Your task to perform on an android device: Open Maps and search for coffee Image 0: 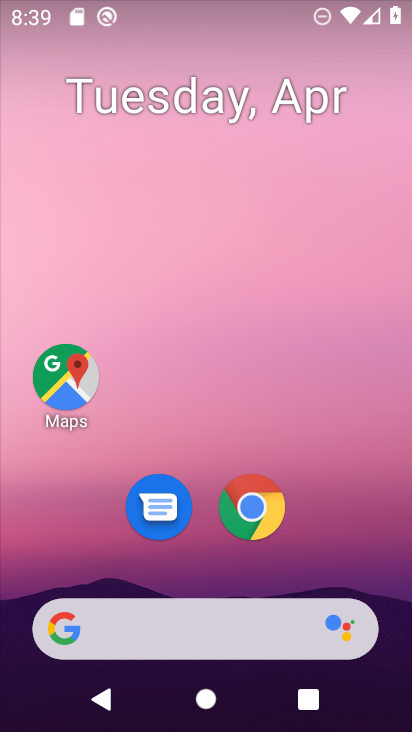
Step 0: click (88, 371)
Your task to perform on an android device: Open Maps and search for coffee Image 1: 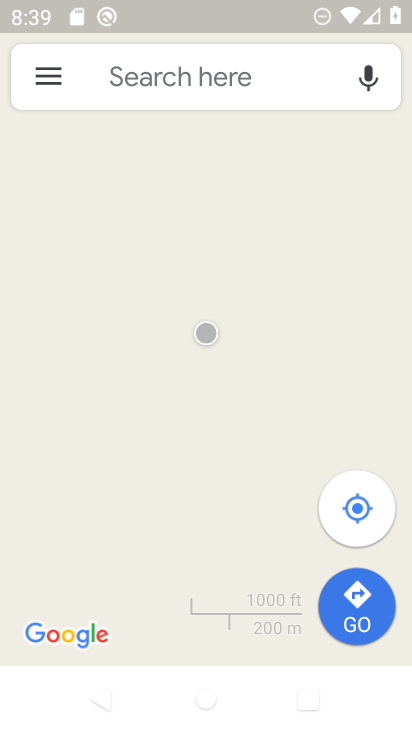
Step 1: click (202, 61)
Your task to perform on an android device: Open Maps and search for coffee Image 2: 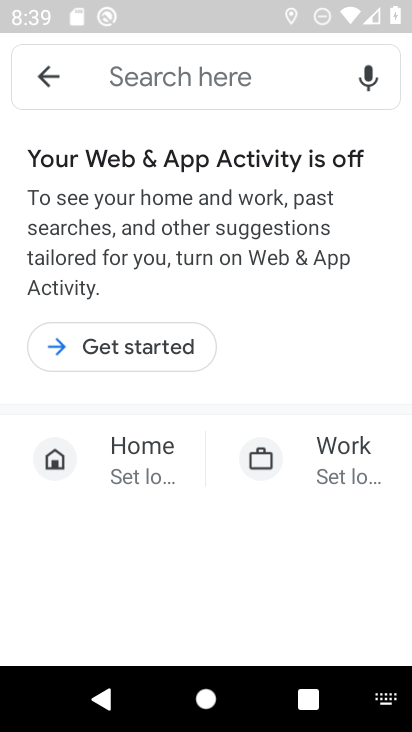
Step 2: type "coffee"
Your task to perform on an android device: Open Maps and search for coffee Image 3: 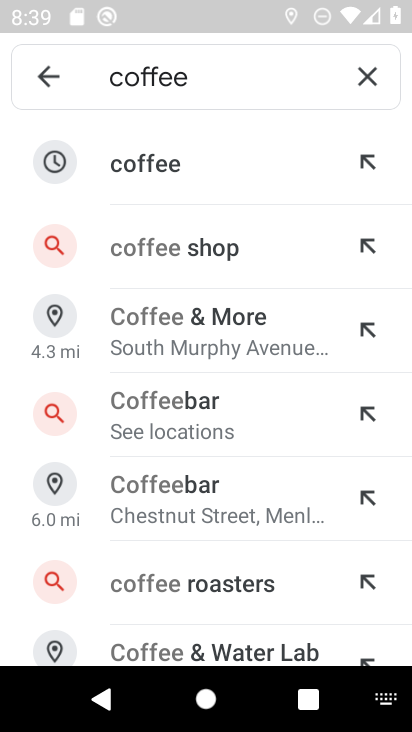
Step 3: click (149, 168)
Your task to perform on an android device: Open Maps and search for coffee Image 4: 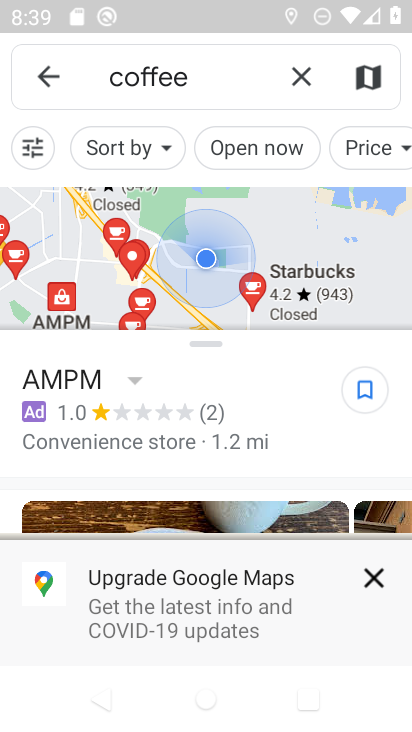
Step 4: task complete